Your task to perform on an android device: When is my next meeting? Image 0: 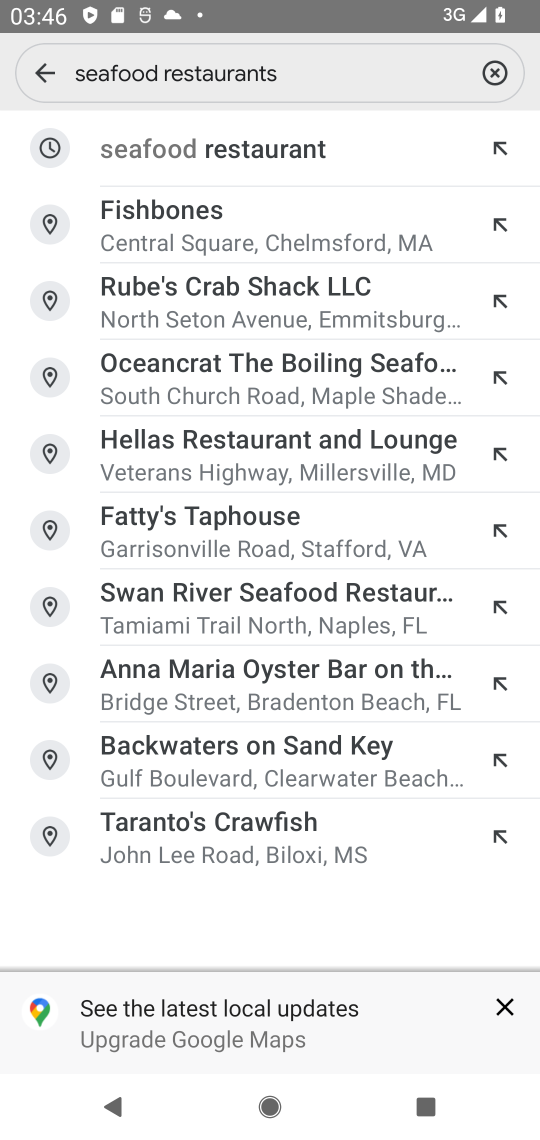
Step 0: press home button
Your task to perform on an android device: When is my next meeting? Image 1: 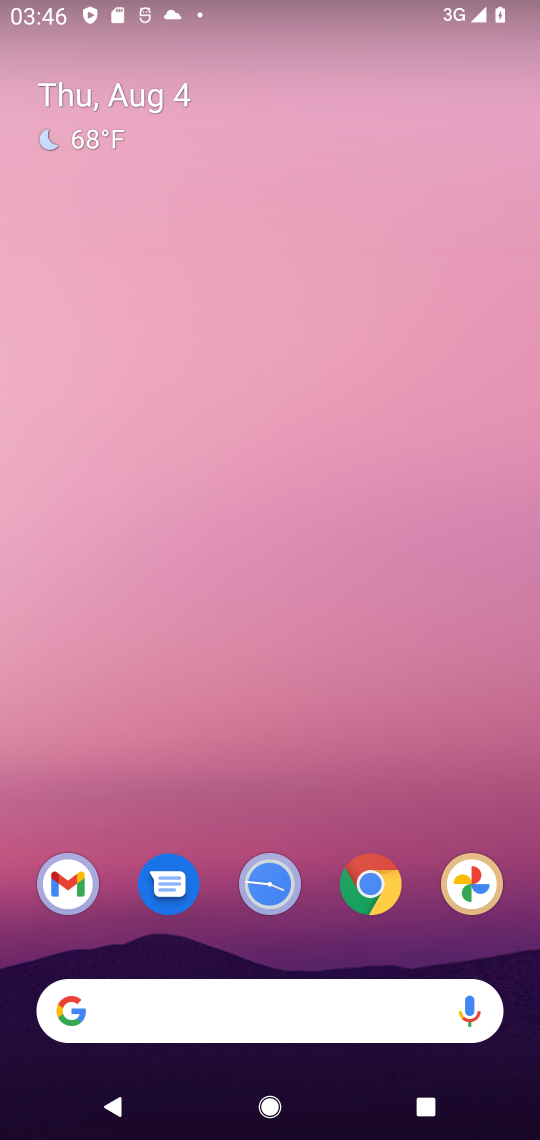
Step 1: drag from (309, 801) to (335, 141)
Your task to perform on an android device: When is my next meeting? Image 2: 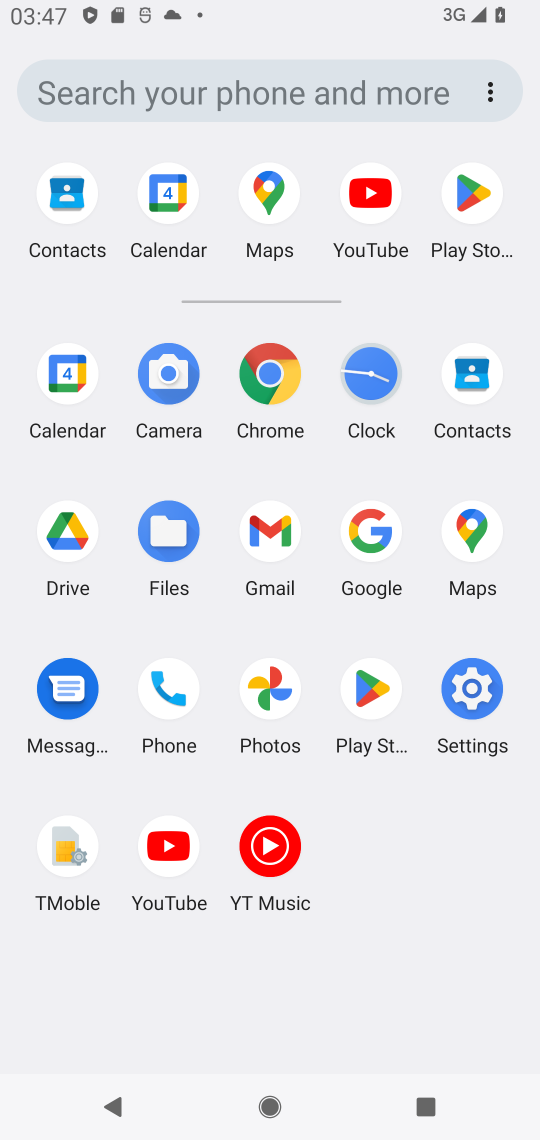
Step 2: click (69, 394)
Your task to perform on an android device: When is my next meeting? Image 3: 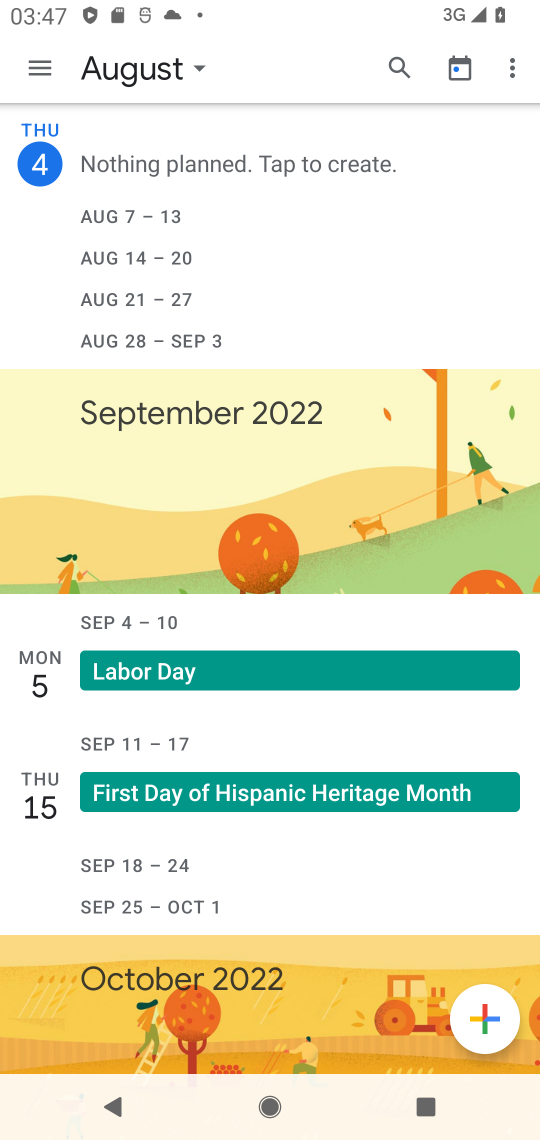
Step 3: task complete